Your task to perform on an android device: toggle sleep mode Image 0: 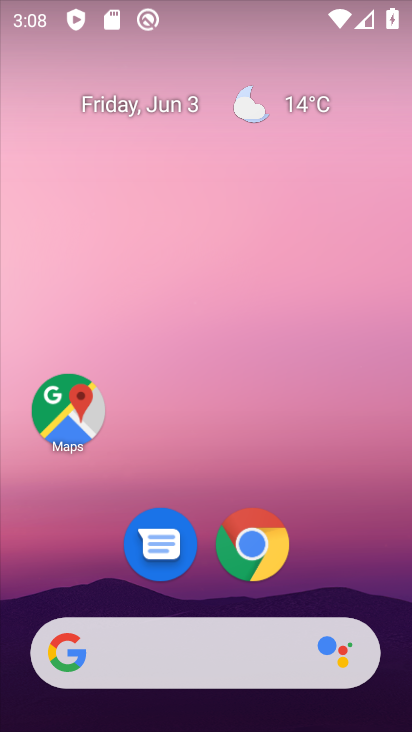
Step 0: drag from (400, 609) to (314, 23)
Your task to perform on an android device: toggle sleep mode Image 1: 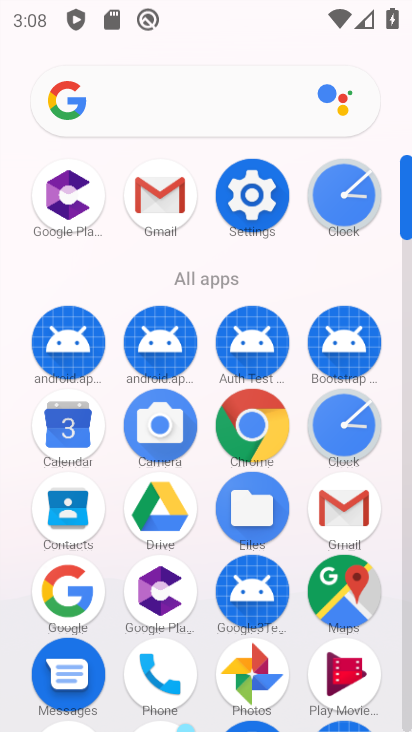
Step 1: click (408, 639)
Your task to perform on an android device: toggle sleep mode Image 2: 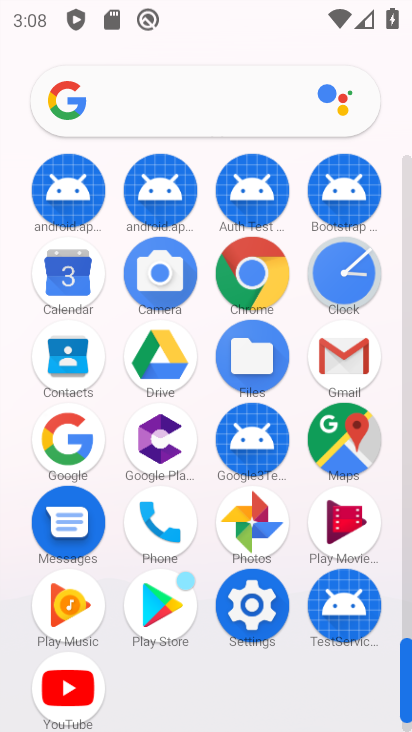
Step 2: click (253, 602)
Your task to perform on an android device: toggle sleep mode Image 3: 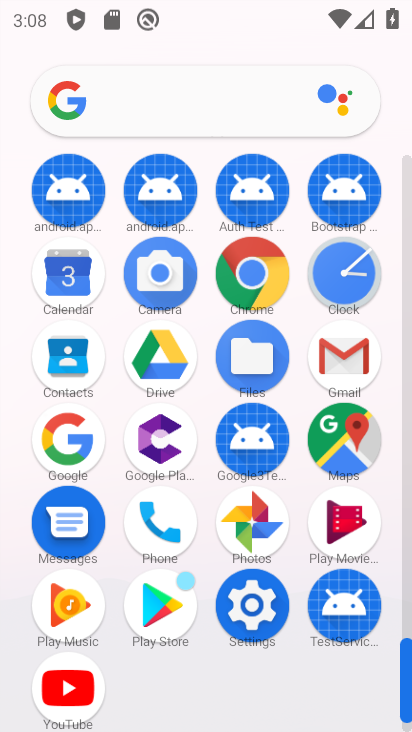
Step 3: click (253, 602)
Your task to perform on an android device: toggle sleep mode Image 4: 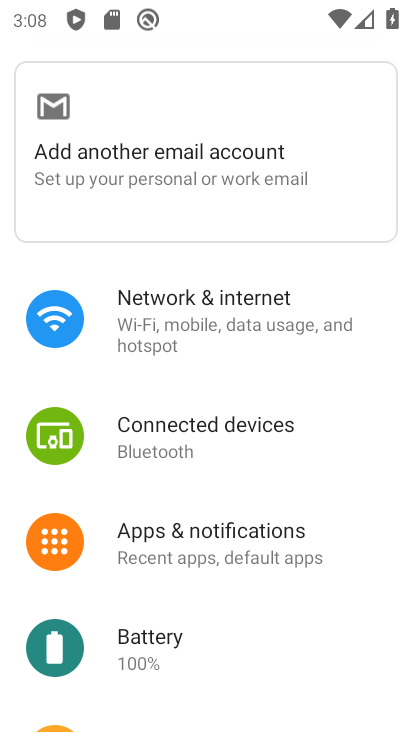
Step 4: drag from (344, 616) to (340, 267)
Your task to perform on an android device: toggle sleep mode Image 5: 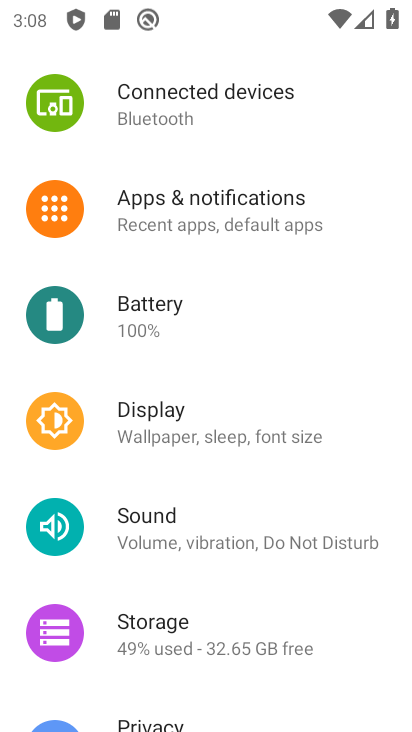
Step 5: click (181, 444)
Your task to perform on an android device: toggle sleep mode Image 6: 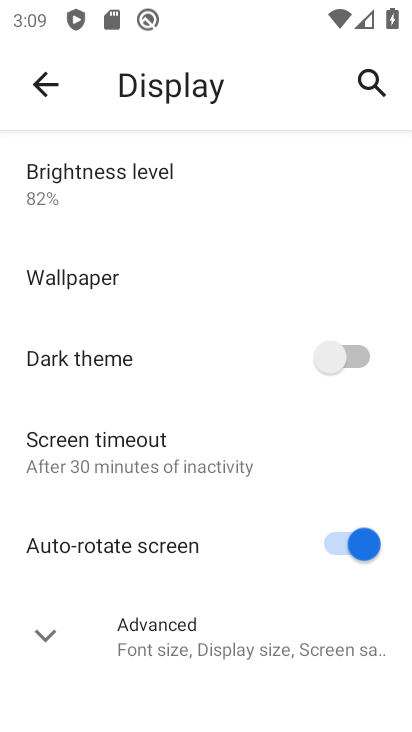
Step 6: click (37, 644)
Your task to perform on an android device: toggle sleep mode Image 7: 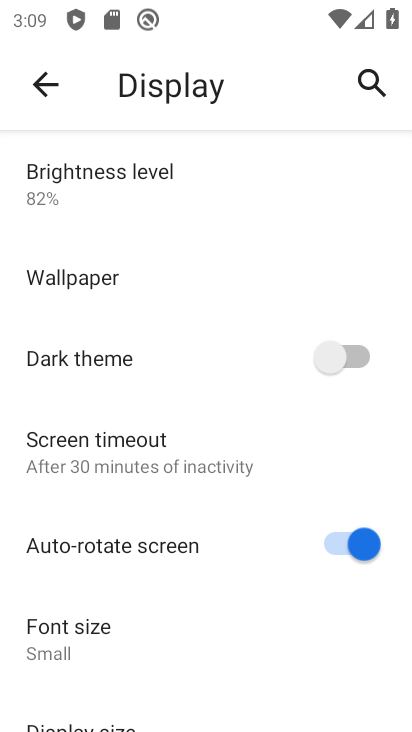
Step 7: task complete